Your task to perform on an android device: find snoozed emails in the gmail app Image 0: 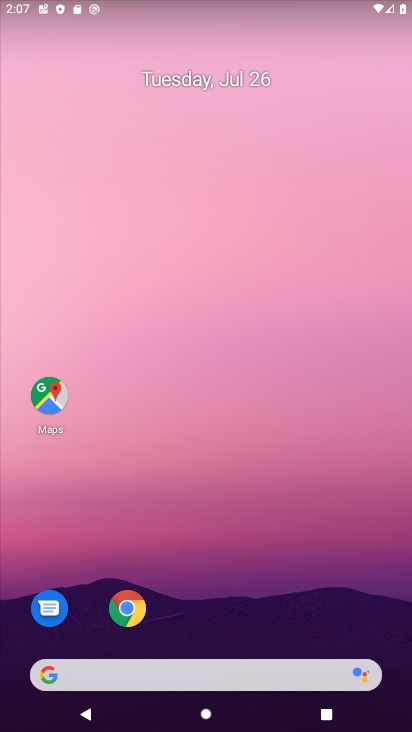
Step 0: drag from (206, 629) to (217, 17)
Your task to perform on an android device: find snoozed emails in the gmail app Image 1: 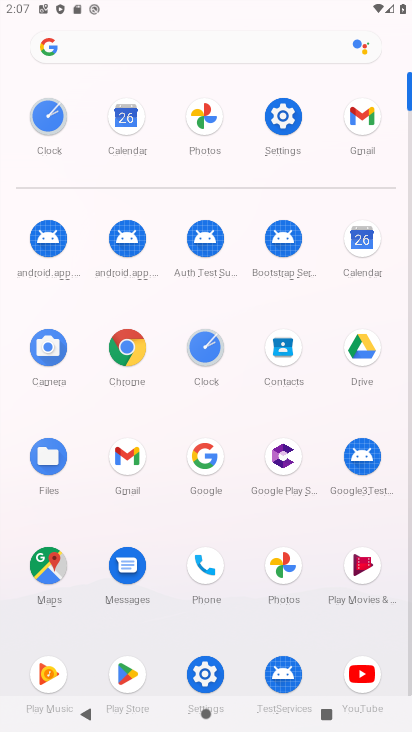
Step 1: click (358, 141)
Your task to perform on an android device: find snoozed emails in the gmail app Image 2: 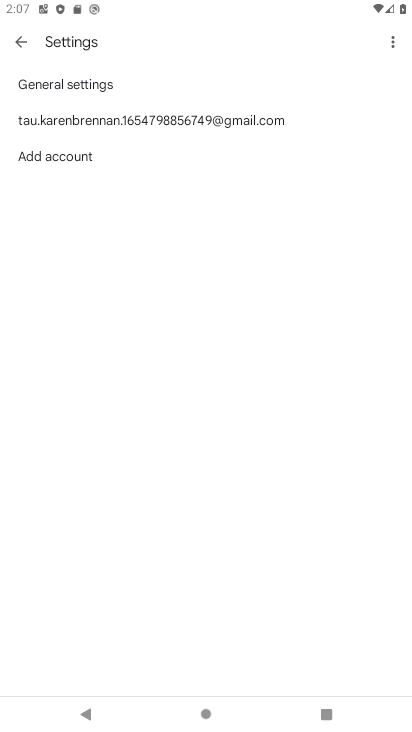
Step 2: task complete